Your task to perform on an android device: check storage Image 0: 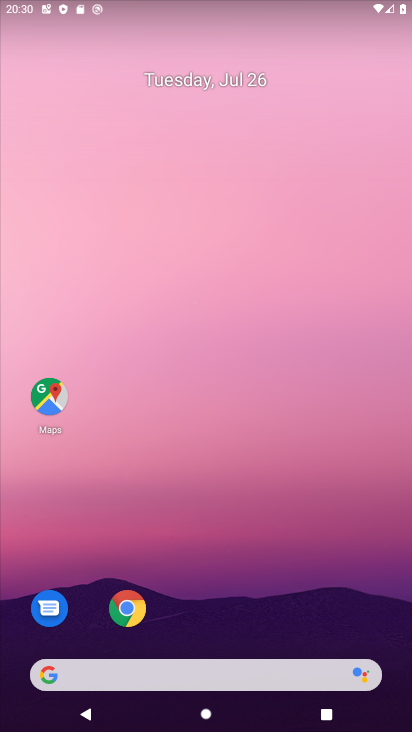
Step 0: drag from (7, 687) to (229, 183)
Your task to perform on an android device: check storage Image 1: 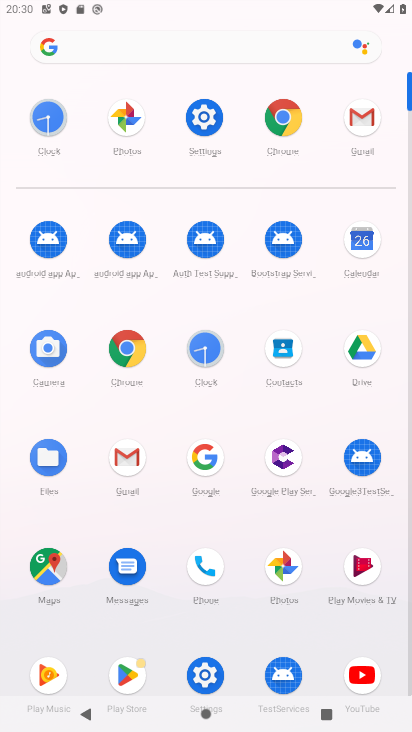
Step 1: click (199, 680)
Your task to perform on an android device: check storage Image 2: 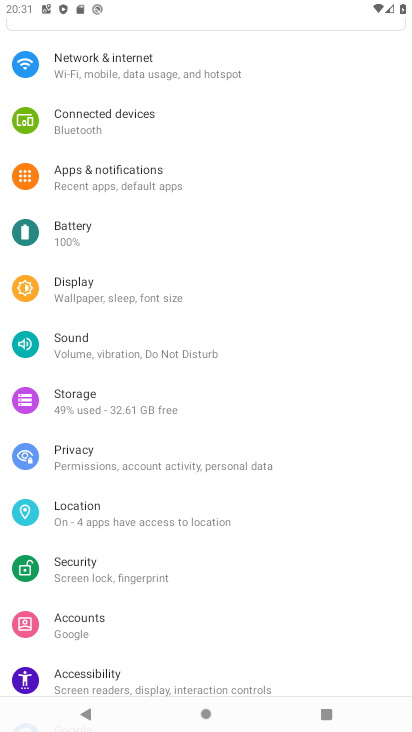
Step 2: click (77, 398)
Your task to perform on an android device: check storage Image 3: 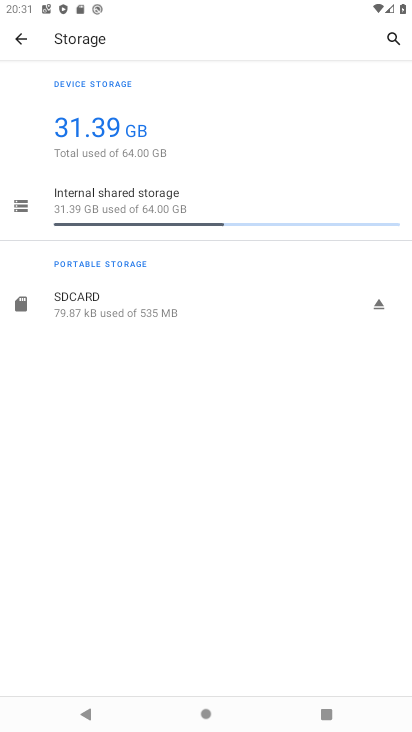
Step 3: task complete